Your task to perform on an android device: Open eBay Image 0: 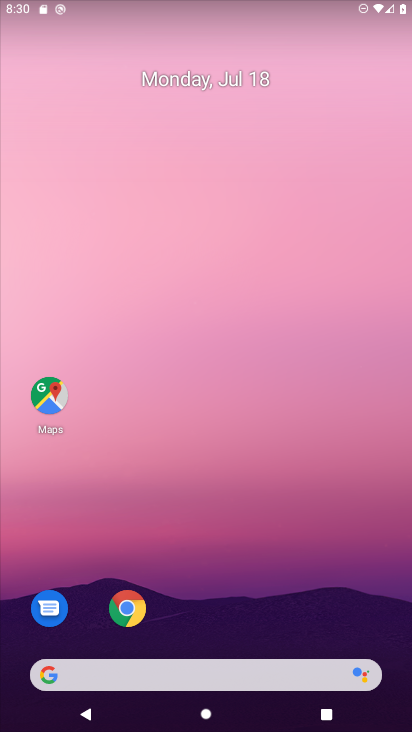
Step 0: click (131, 613)
Your task to perform on an android device: Open eBay Image 1: 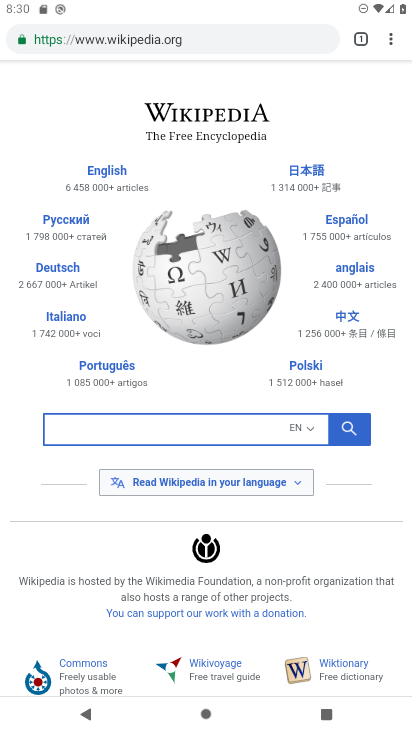
Step 1: click (117, 37)
Your task to perform on an android device: Open eBay Image 2: 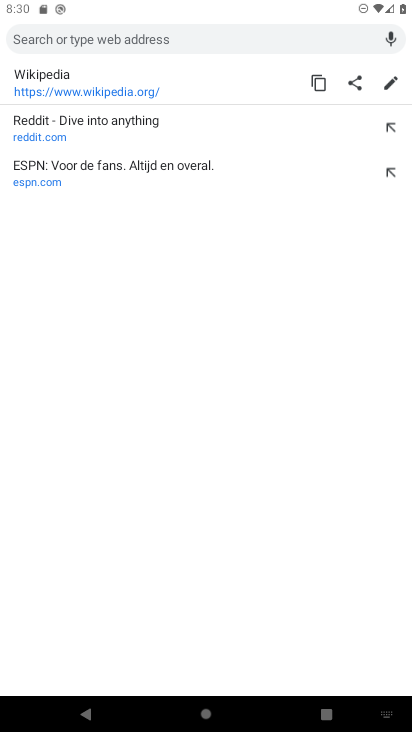
Step 2: type "ebay"
Your task to perform on an android device: Open eBay Image 3: 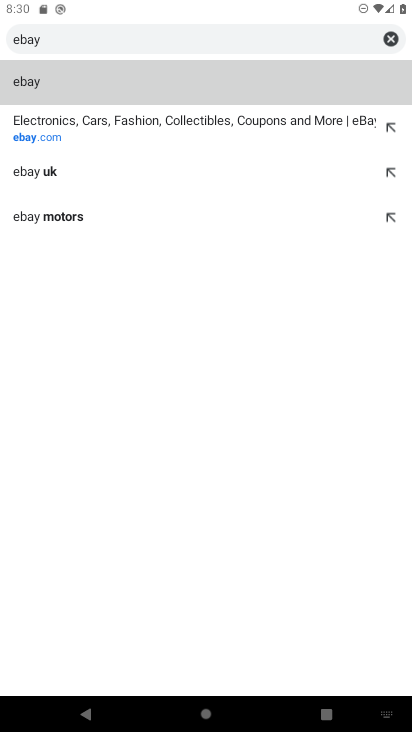
Step 3: click (236, 87)
Your task to perform on an android device: Open eBay Image 4: 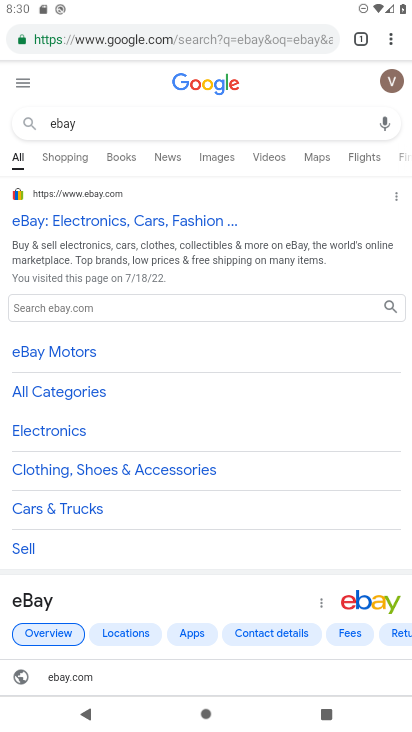
Step 4: click (99, 217)
Your task to perform on an android device: Open eBay Image 5: 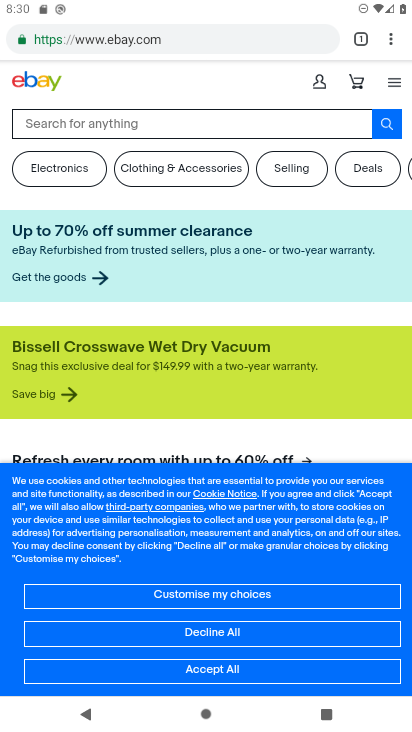
Step 5: task complete